Your task to perform on an android device: find snoozed emails in the gmail app Image 0: 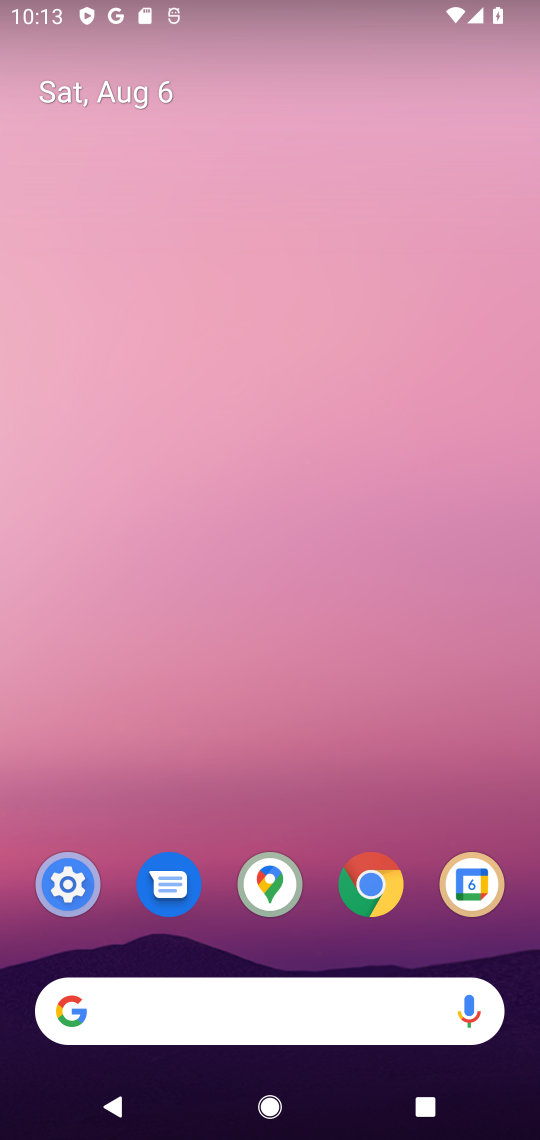
Step 0: drag from (440, 955) to (405, 160)
Your task to perform on an android device: find snoozed emails in the gmail app Image 1: 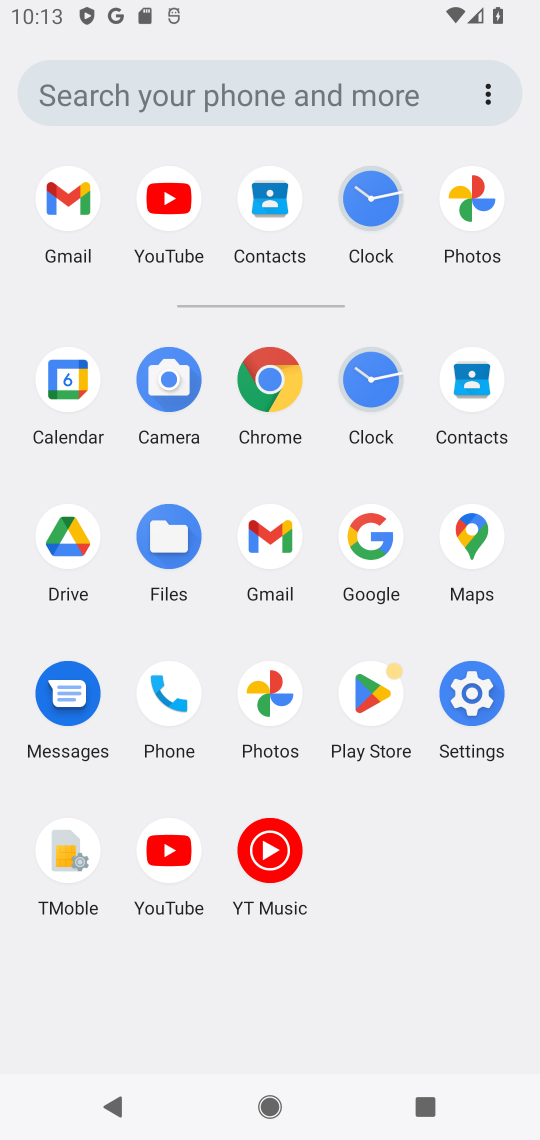
Step 1: click (269, 540)
Your task to perform on an android device: find snoozed emails in the gmail app Image 2: 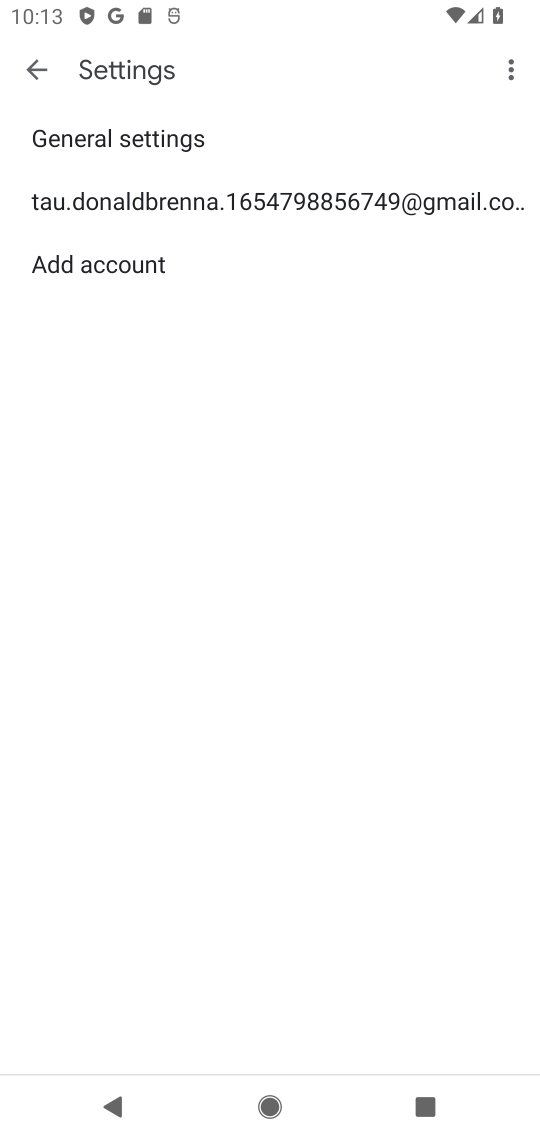
Step 2: press back button
Your task to perform on an android device: find snoozed emails in the gmail app Image 3: 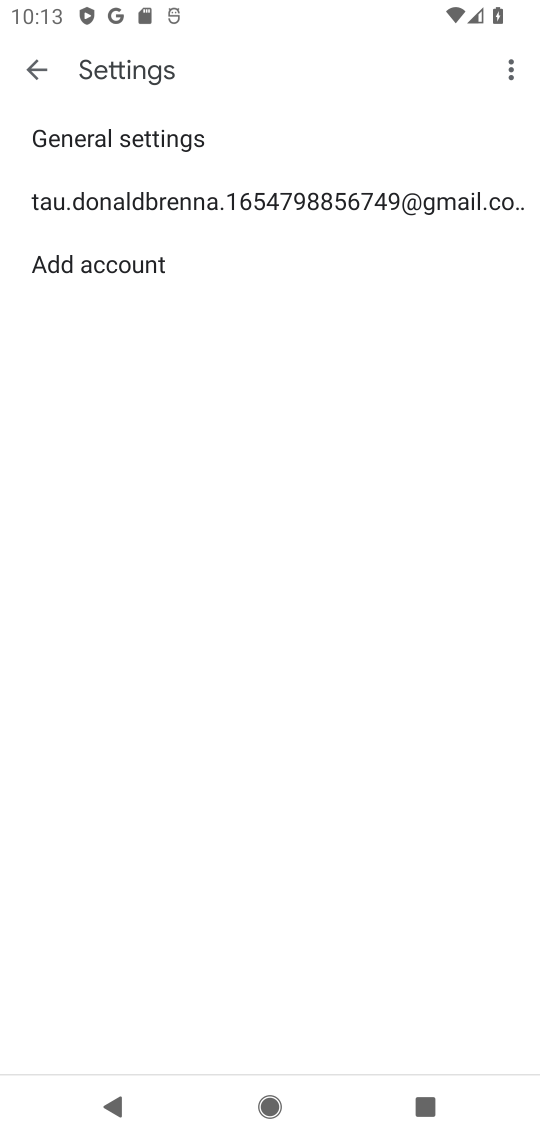
Step 3: press back button
Your task to perform on an android device: find snoozed emails in the gmail app Image 4: 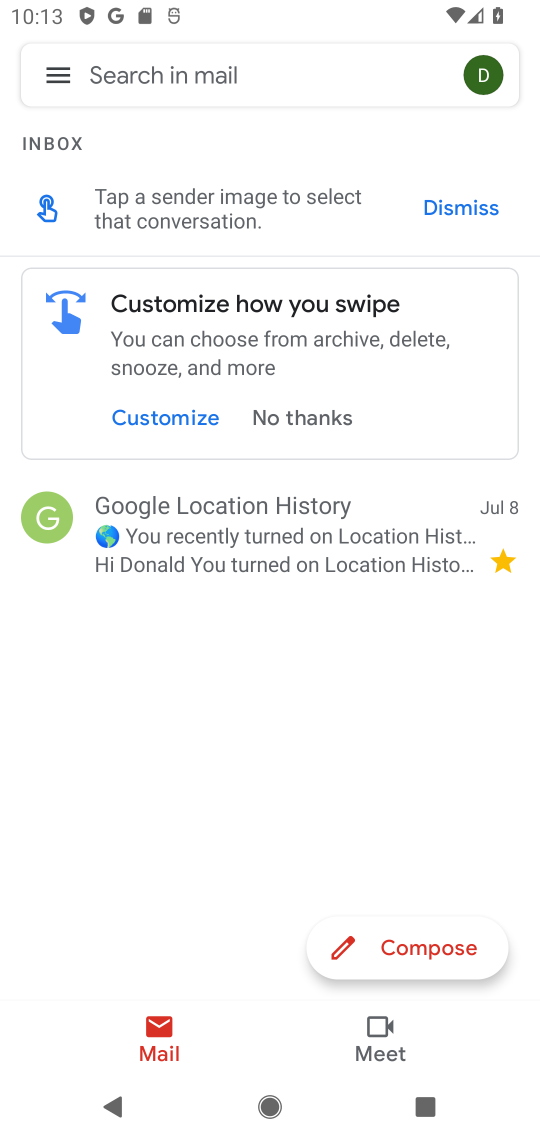
Step 4: click (58, 73)
Your task to perform on an android device: find snoozed emails in the gmail app Image 5: 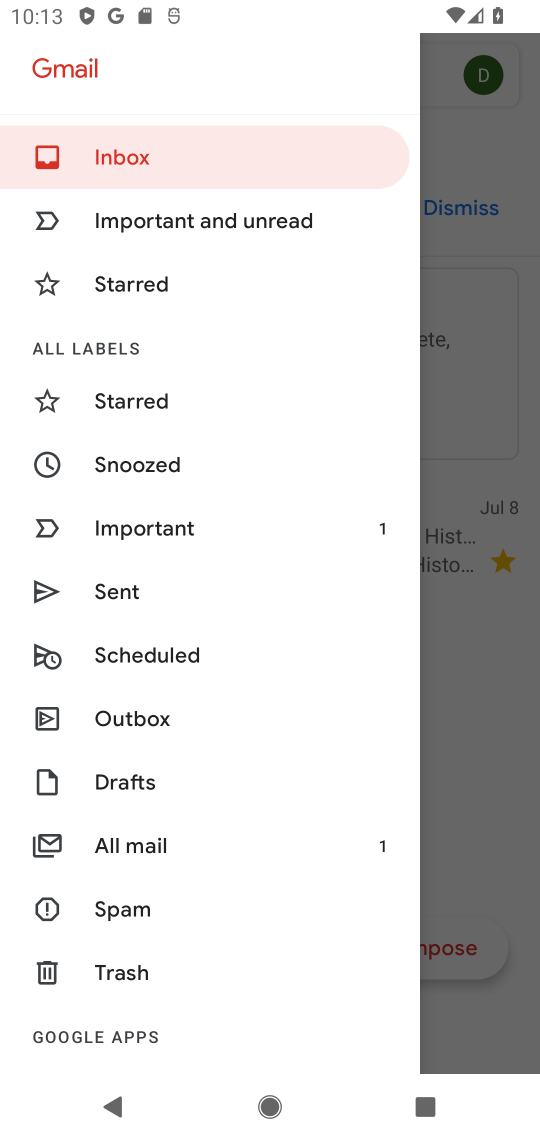
Step 5: click (122, 455)
Your task to perform on an android device: find snoozed emails in the gmail app Image 6: 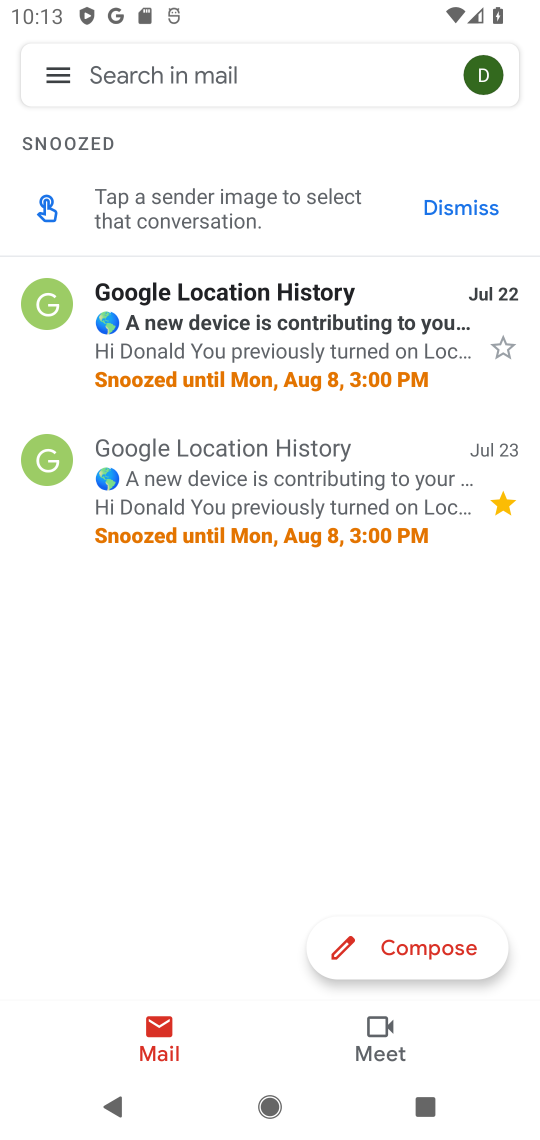
Step 6: task complete